Your task to perform on an android device: toggle show notifications on the lock screen Image 0: 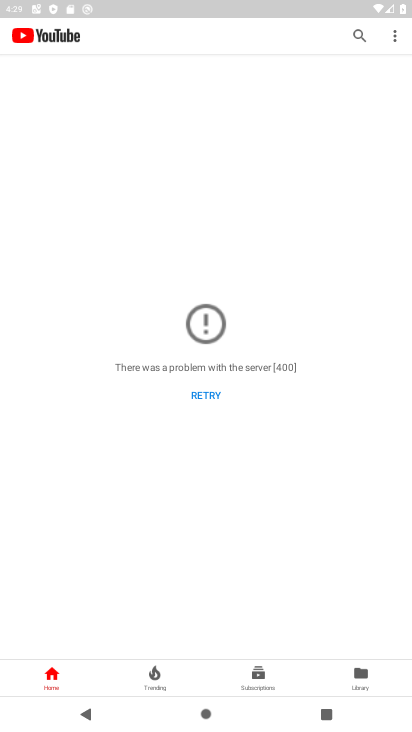
Step 0: press home button
Your task to perform on an android device: toggle show notifications on the lock screen Image 1: 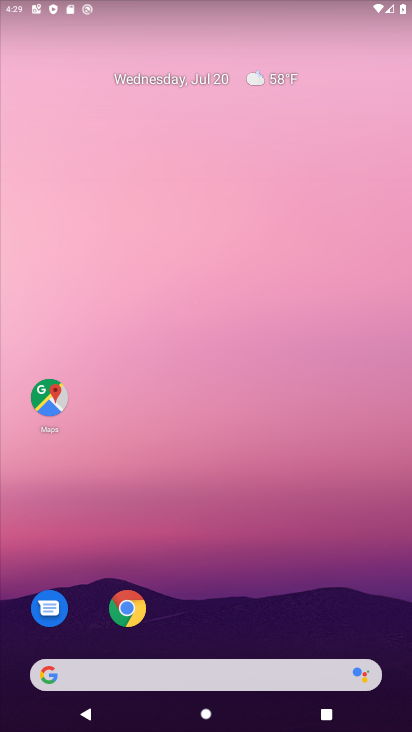
Step 1: drag from (216, 637) to (210, 80)
Your task to perform on an android device: toggle show notifications on the lock screen Image 2: 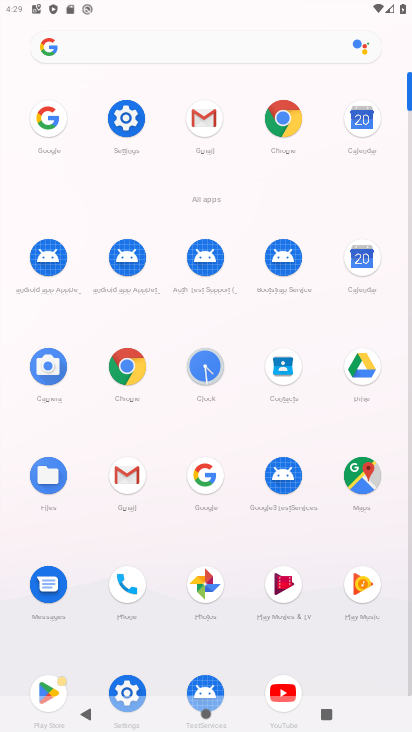
Step 2: click (117, 138)
Your task to perform on an android device: toggle show notifications on the lock screen Image 3: 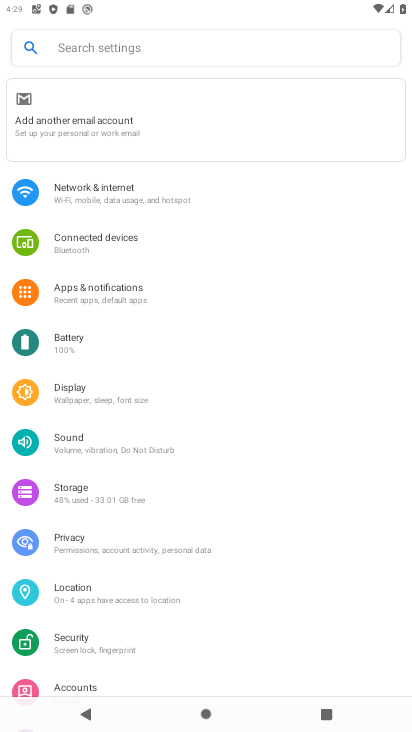
Step 3: click (110, 278)
Your task to perform on an android device: toggle show notifications on the lock screen Image 4: 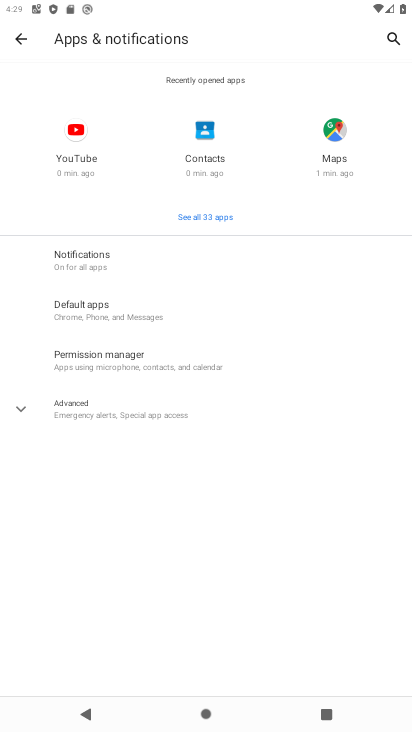
Step 4: click (88, 260)
Your task to perform on an android device: toggle show notifications on the lock screen Image 5: 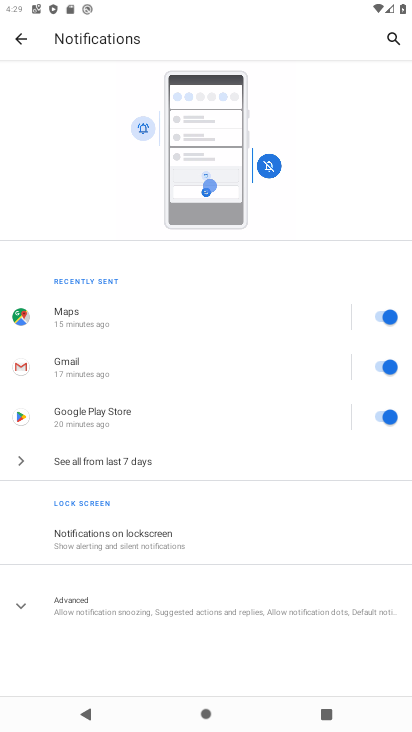
Step 5: click (149, 541)
Your task to perform on an android device: toggle show notifications on the lock screen Image 6: 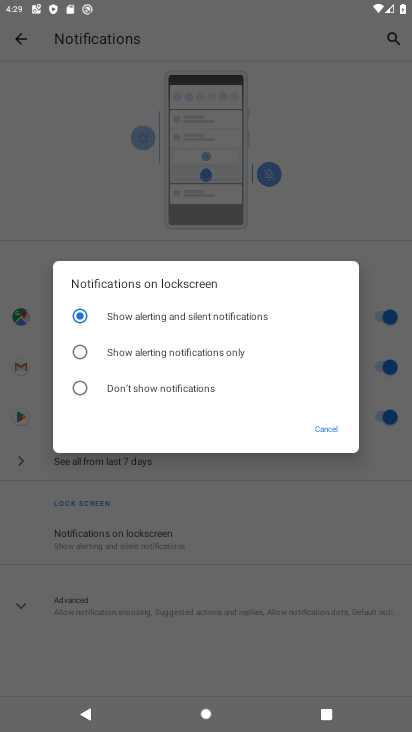
Step 6: click (114, 347)
Your task to perform on an android device: toggle show notifications on the lock screen Image 7: 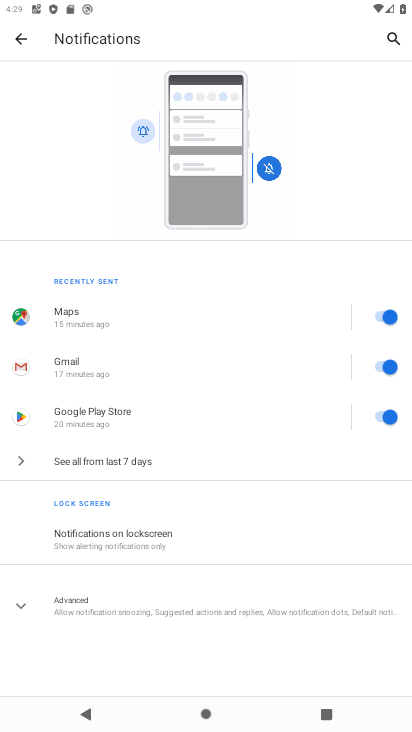
Step 7: task complete